Your task to perform on an android device: Open Youtube and go to "Your channel" Image 0: 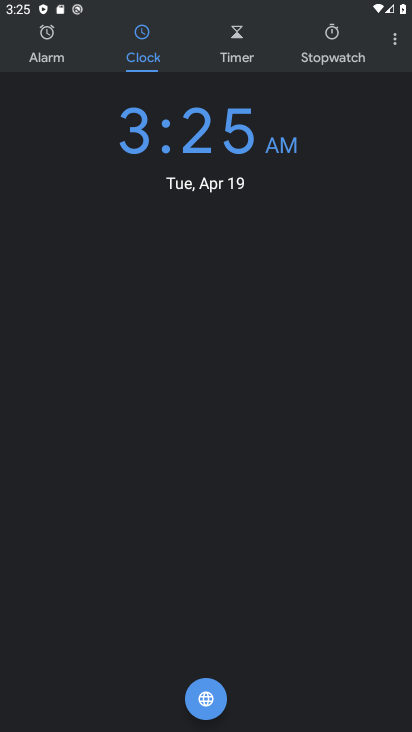
Step 0: press back button
Your task to perform on an android device: Open Youtube and go to "Your channel" Image 1: 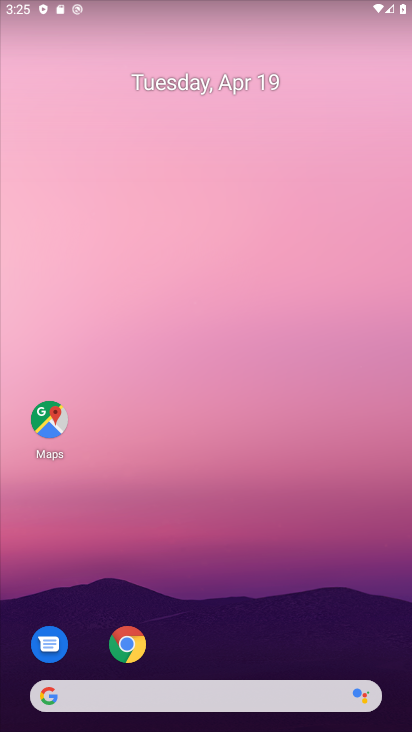
Step 1: drag from (227, 635) to (308, 89)
Your task to perform on an android device: Open Youtube and go to "Your channel" Image 2: 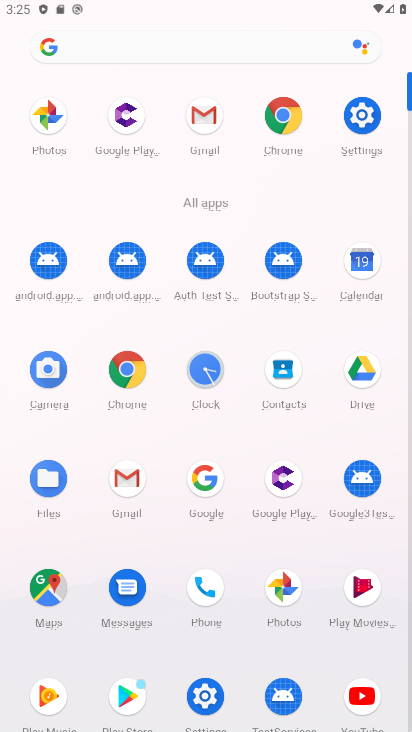
Step 2: click (365, 694)
Your task to perform on an android device: Open Youtube and go to "Your channel" Image 3: 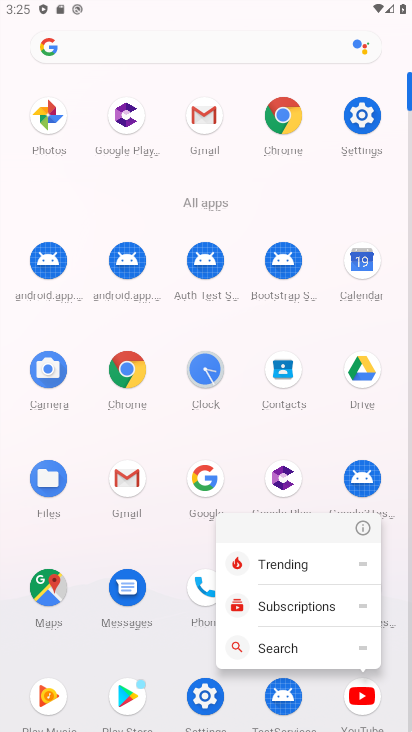
Step 3: click (359, 689)
Your task to perform on an android device: Open Youtube and go to "Your channel" Image 4: 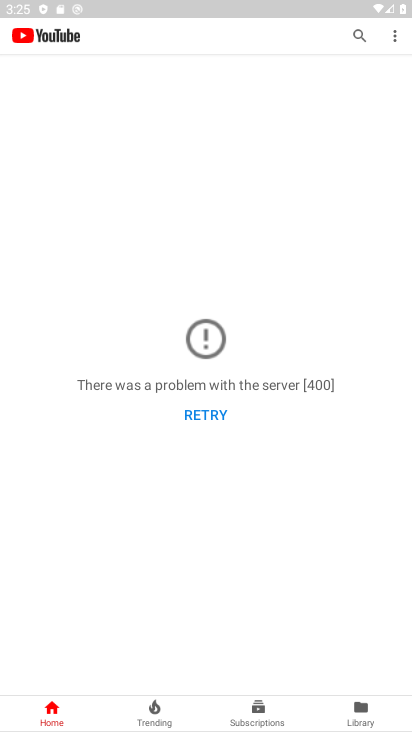
Step 4: click (366, 711)
Your task to perform on an android device: Open Youtube and go to "Your channel" Image 5: 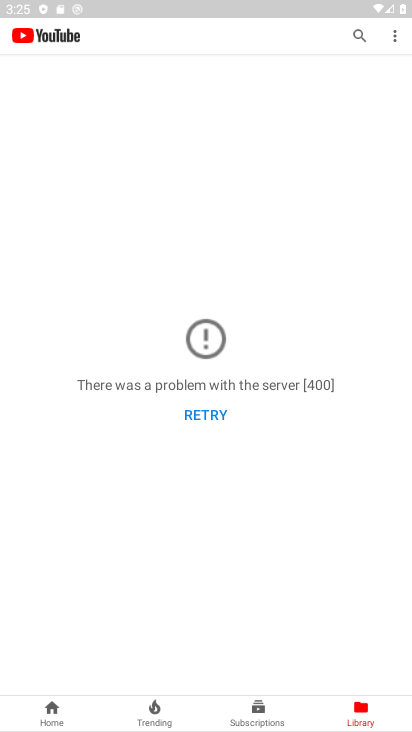
Step 5: task complete